Your task to perform on an android device: Clear the cart on costco.com. Search for "macbook" on costco.com, select the first entry, and add it to the cart. Image 0: 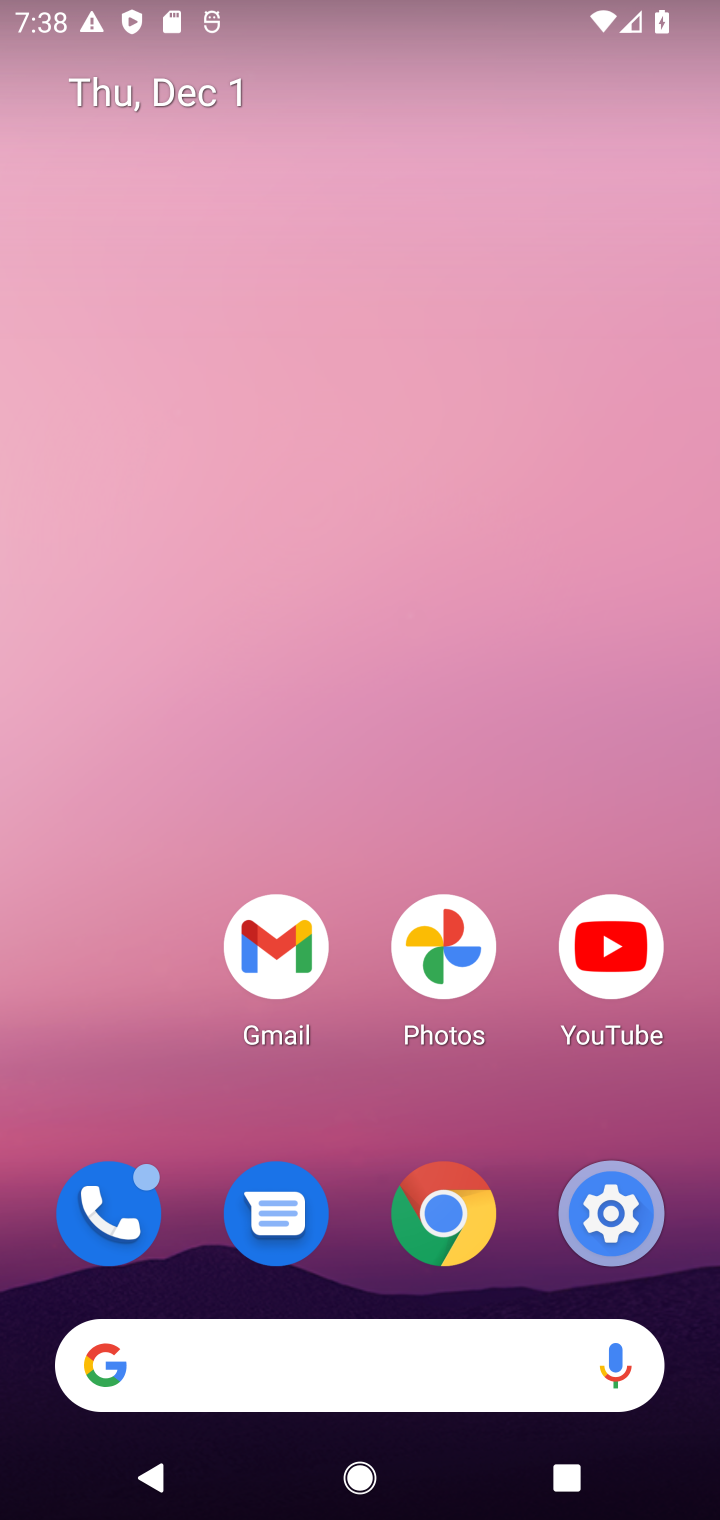
Step 0: click (431, 1208)
Your task to perform on an android device: Clear the cart on costco.com. Search for "macbook" on costco.com, select the first entry, and add it to the cart. Image 1: 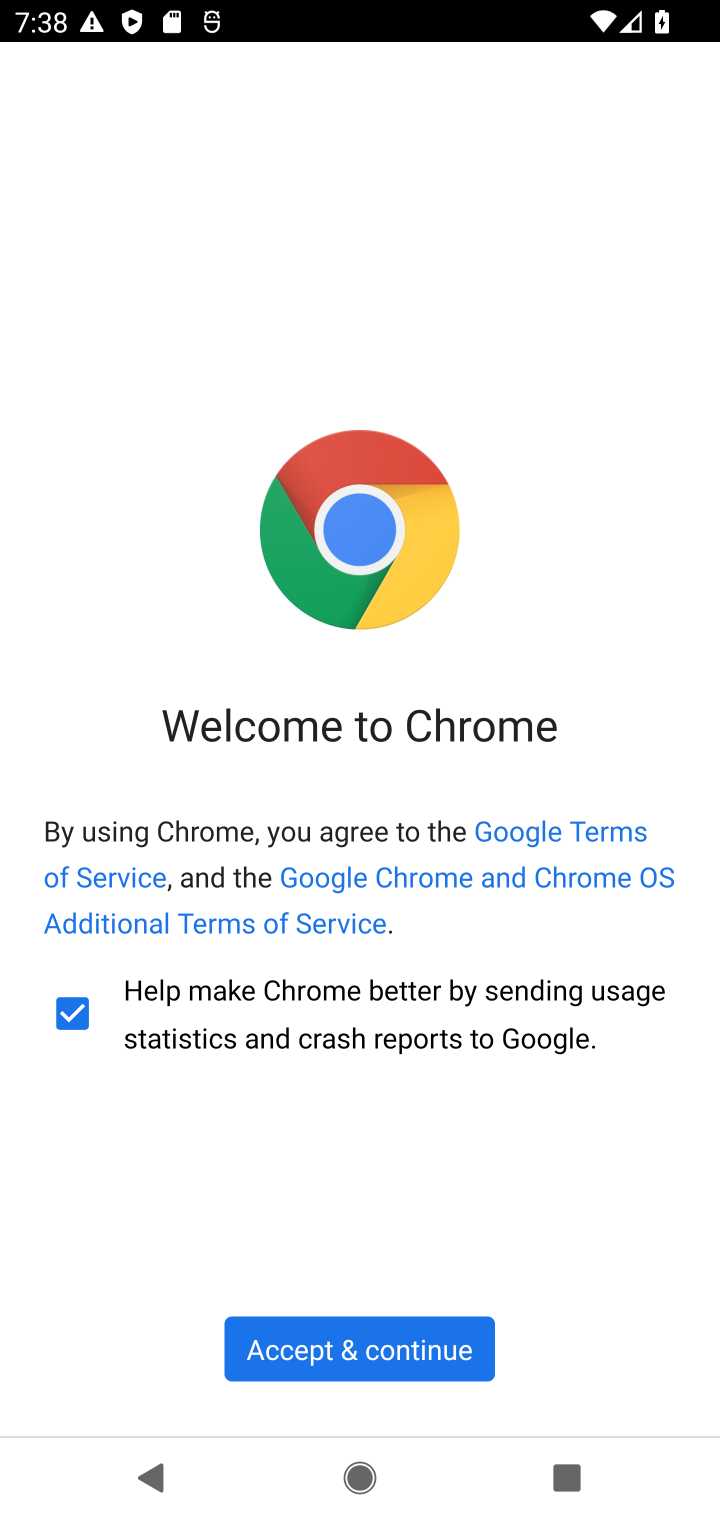
Step 1: click (330, 1350)
Your task to perform on an android device: Clear the cart on costco.com. Search for "macbook" on costco.com, select the first entry, and add it to the cart. Image 2: 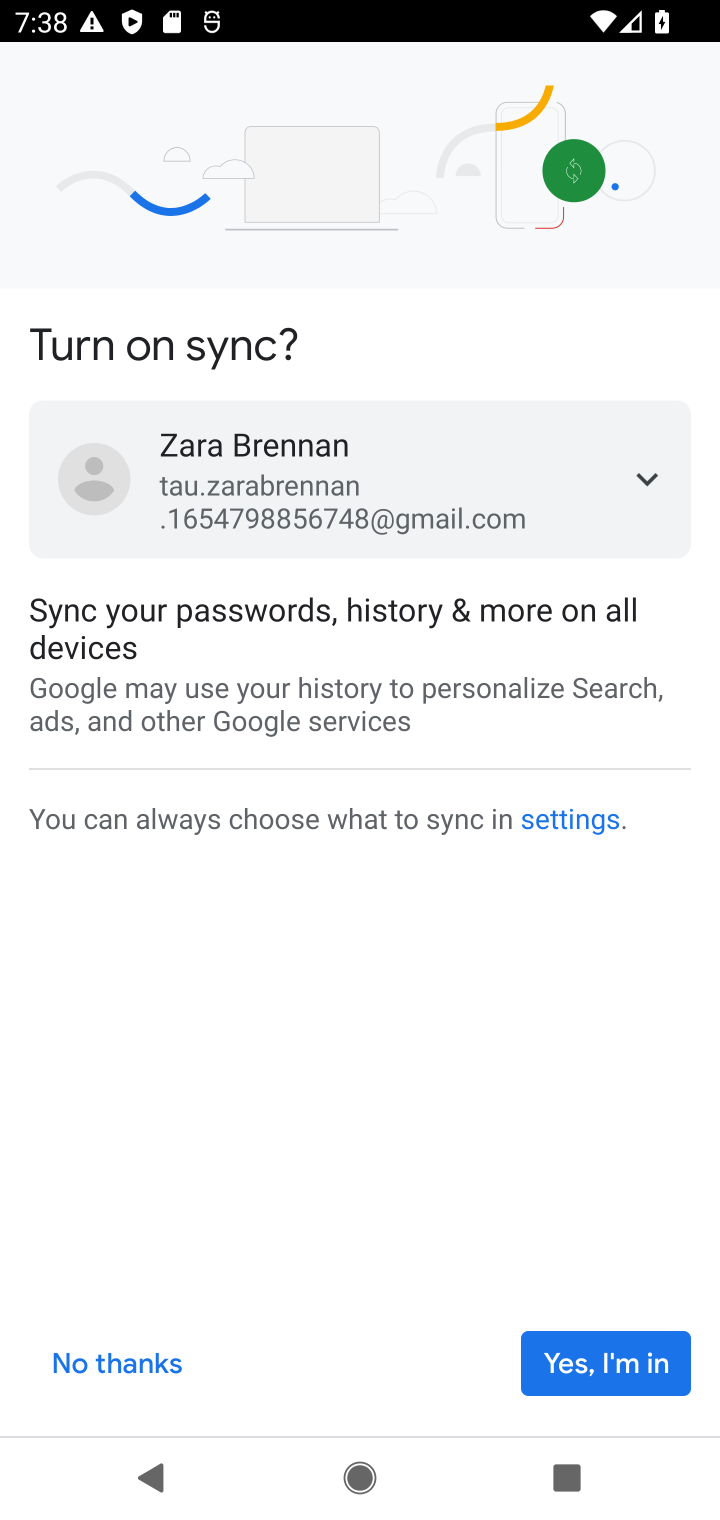
Step 2: click (595, 1371)
Your task to perform on an android device: Clear the cart on costco.com. Search for "macbook" on costco.com, select the first entry, and add it to the cart. Image 3: 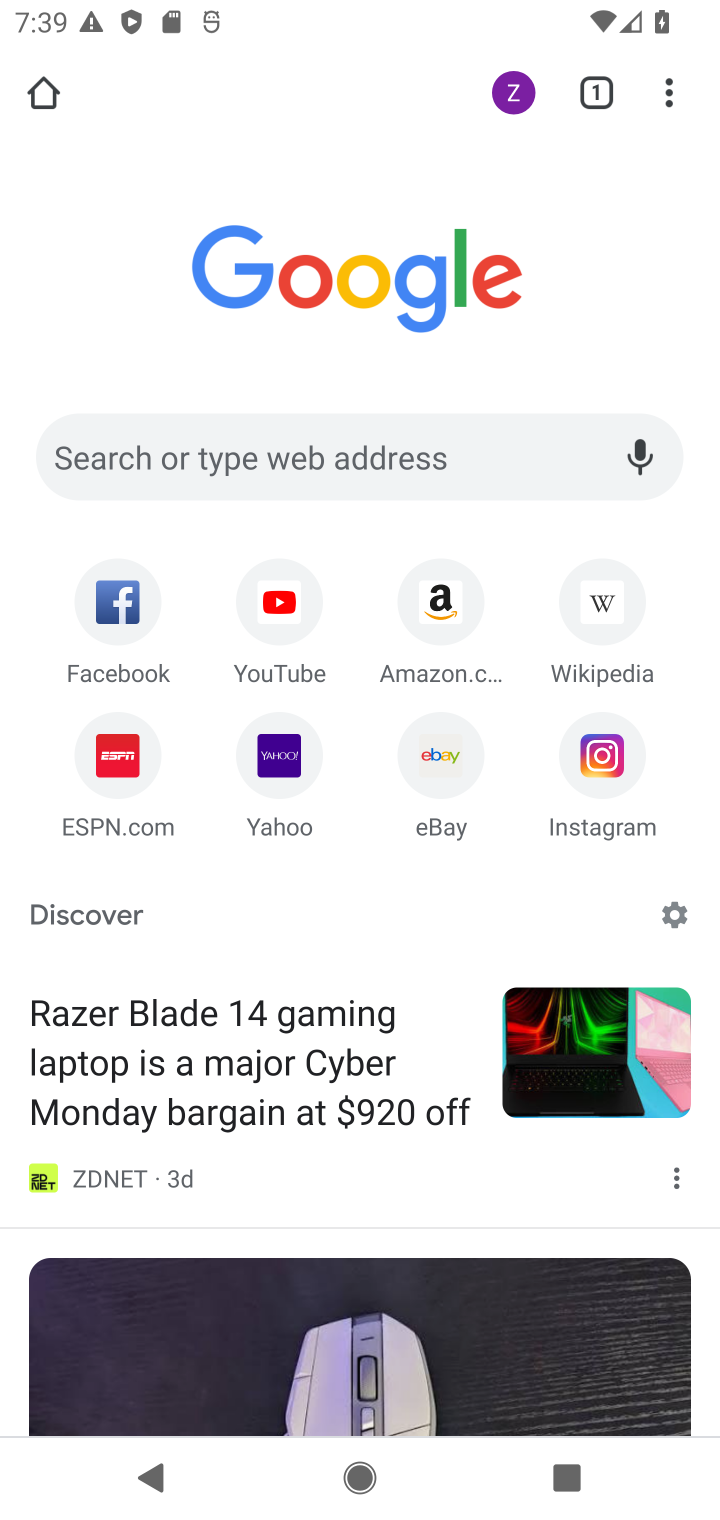
Step 3: click (270, 455)
Your task to perform on an android device: Clear the cart on costco.com. Search for "macbook" on costco.com, select the first entry, and add it to the cart. Image 4: 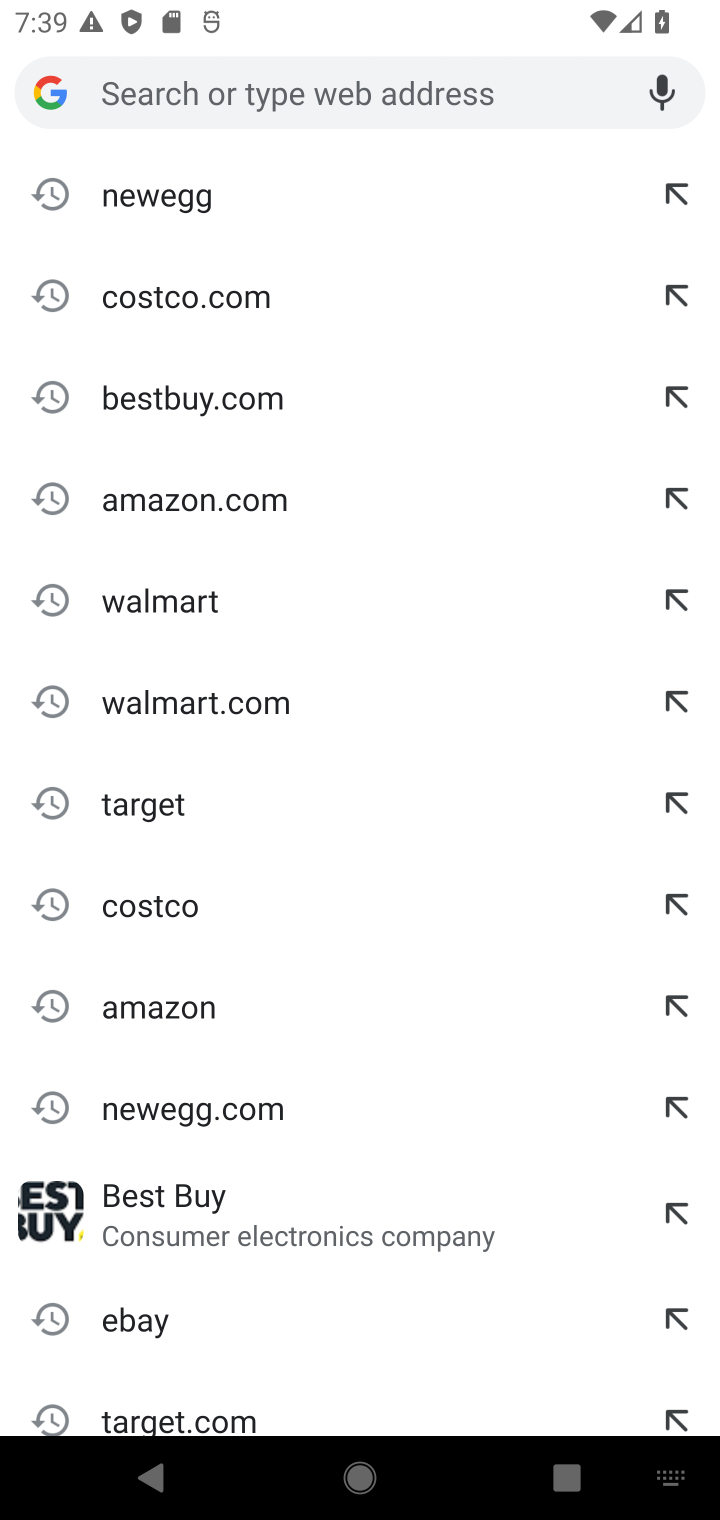
Step 4: click (253, 309)
Your task to perform on an android device: Clear the cart on costco.com. Search for "macbook" on costco.com, select the first entry, and add it to the cart. Image 5: 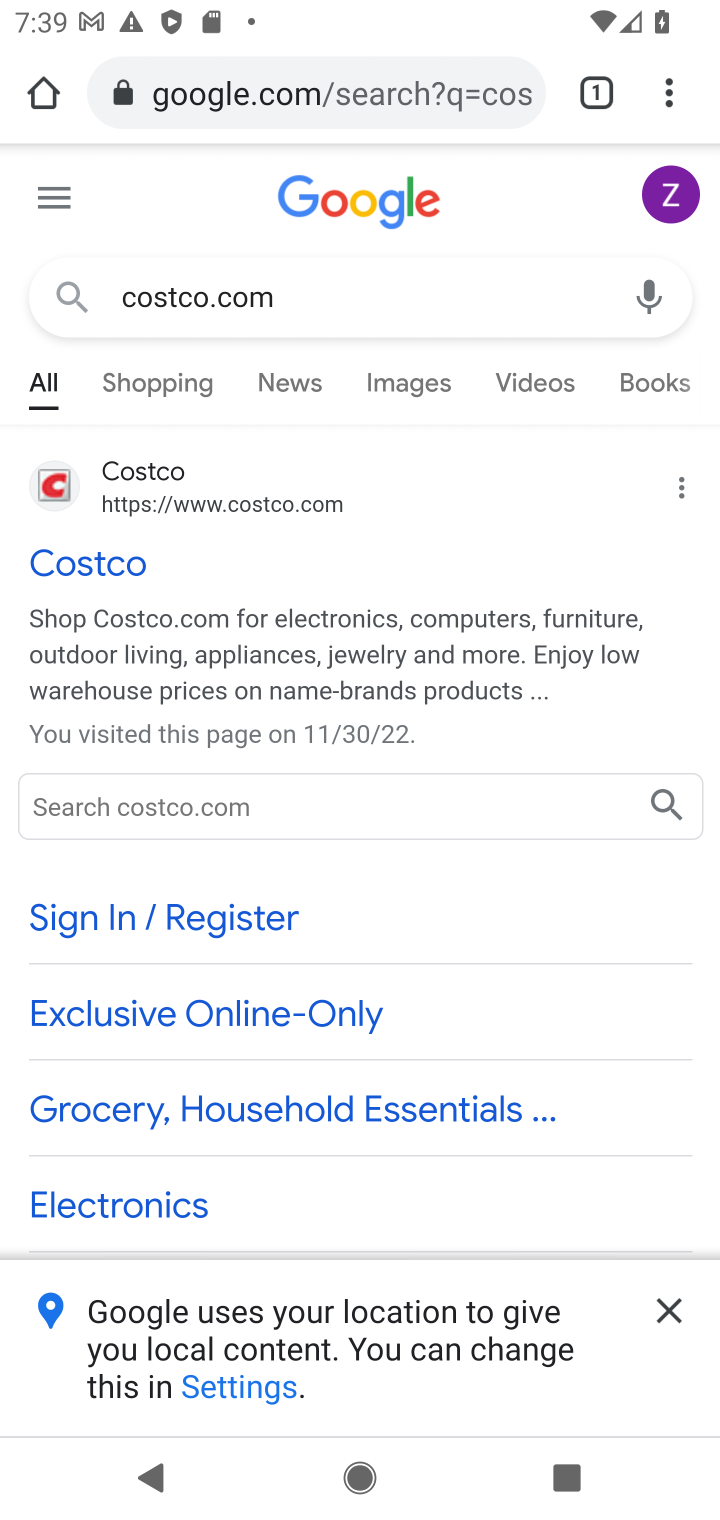
Step 5: click (665, 1314)
Your task to perform on an android device: Clear the cart on costco.com. Search for "macbook" on costco.com, select the first entry, and add it to the cart. Image 6: 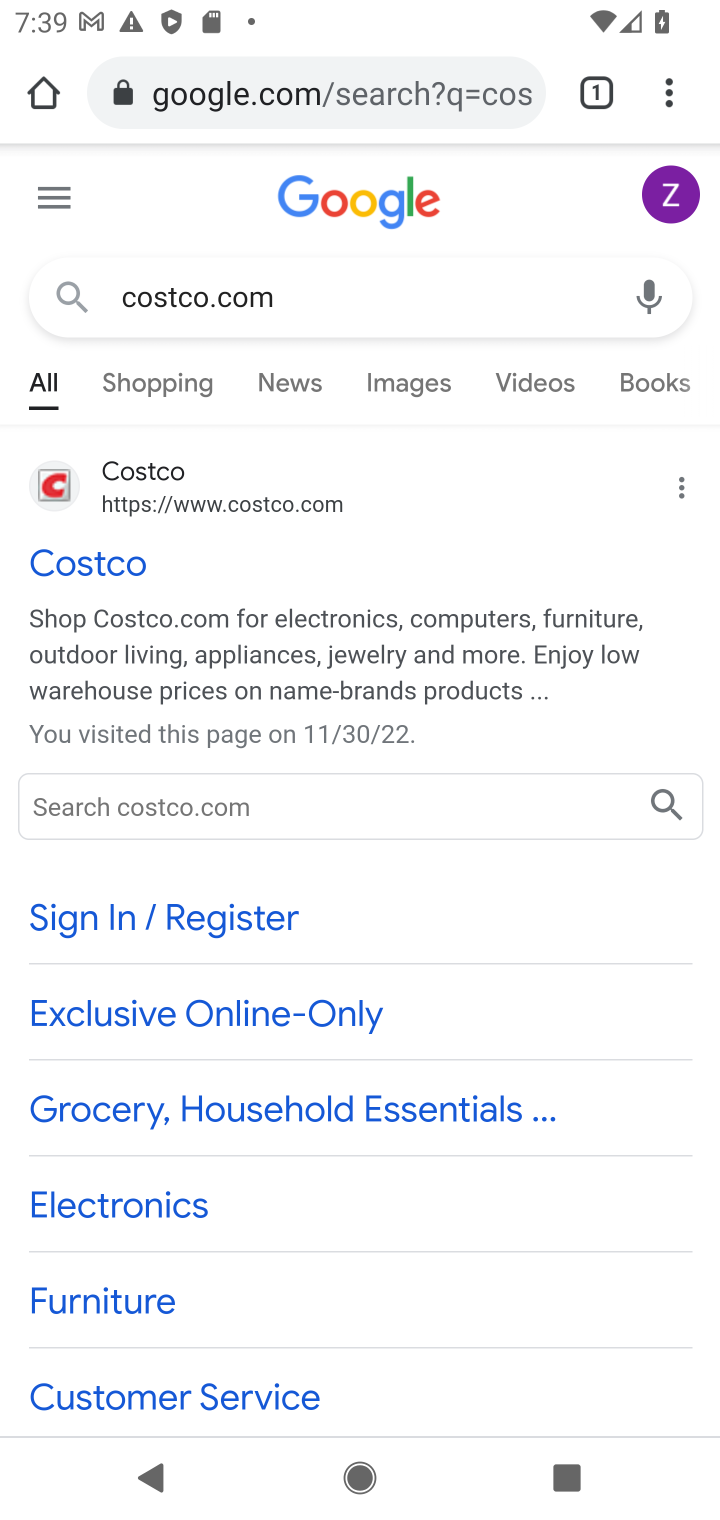
Step 6: click (104, 559)
Your task to perform on an android device: Clear the cart on costco.com. Search for "macbook" on costco.com, select the first entry, and add it to the cart. Image 7: 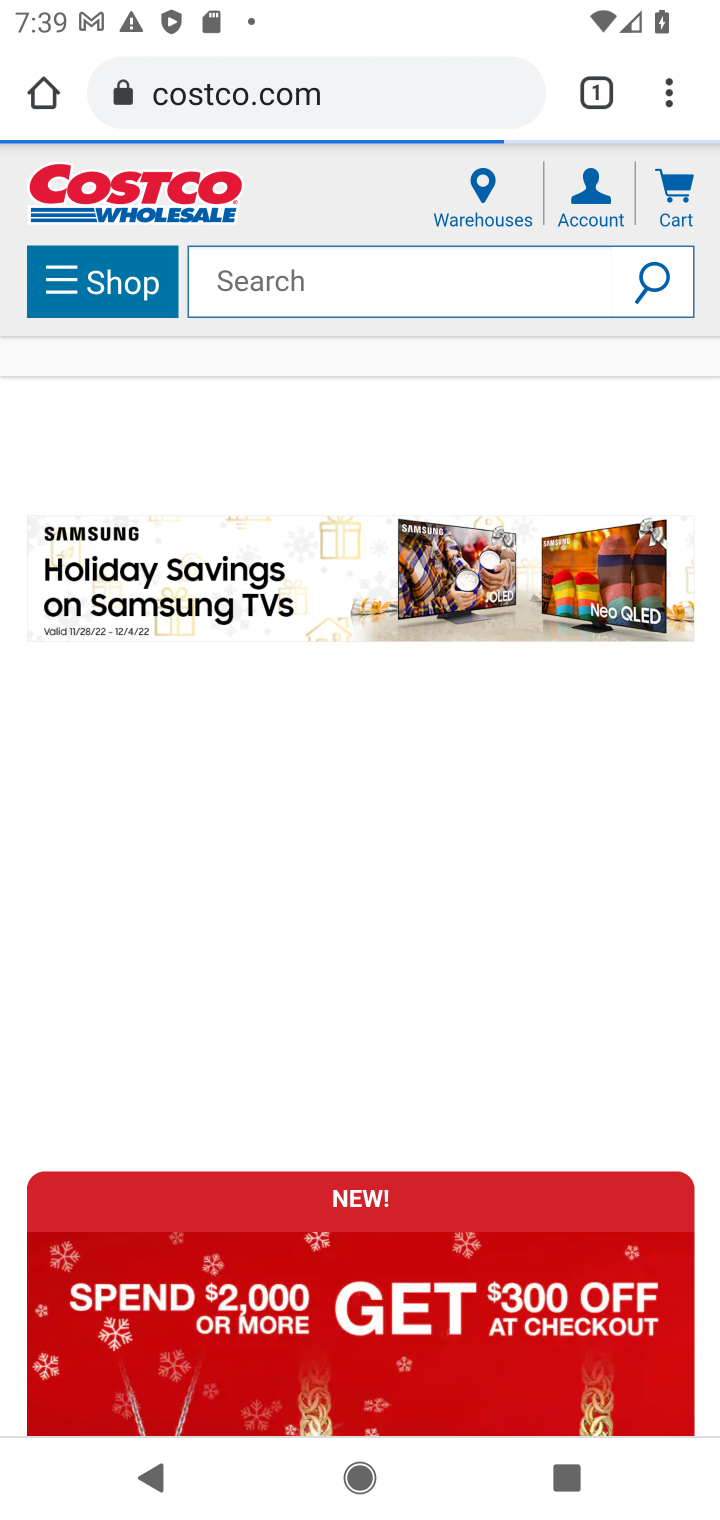
Step 7: click (672, 190)
Your task to perform on an android device: Clear the cart on costco.com. Search for "macbook" on costco.com, select the first entry, and add it to the cart. Image 8: 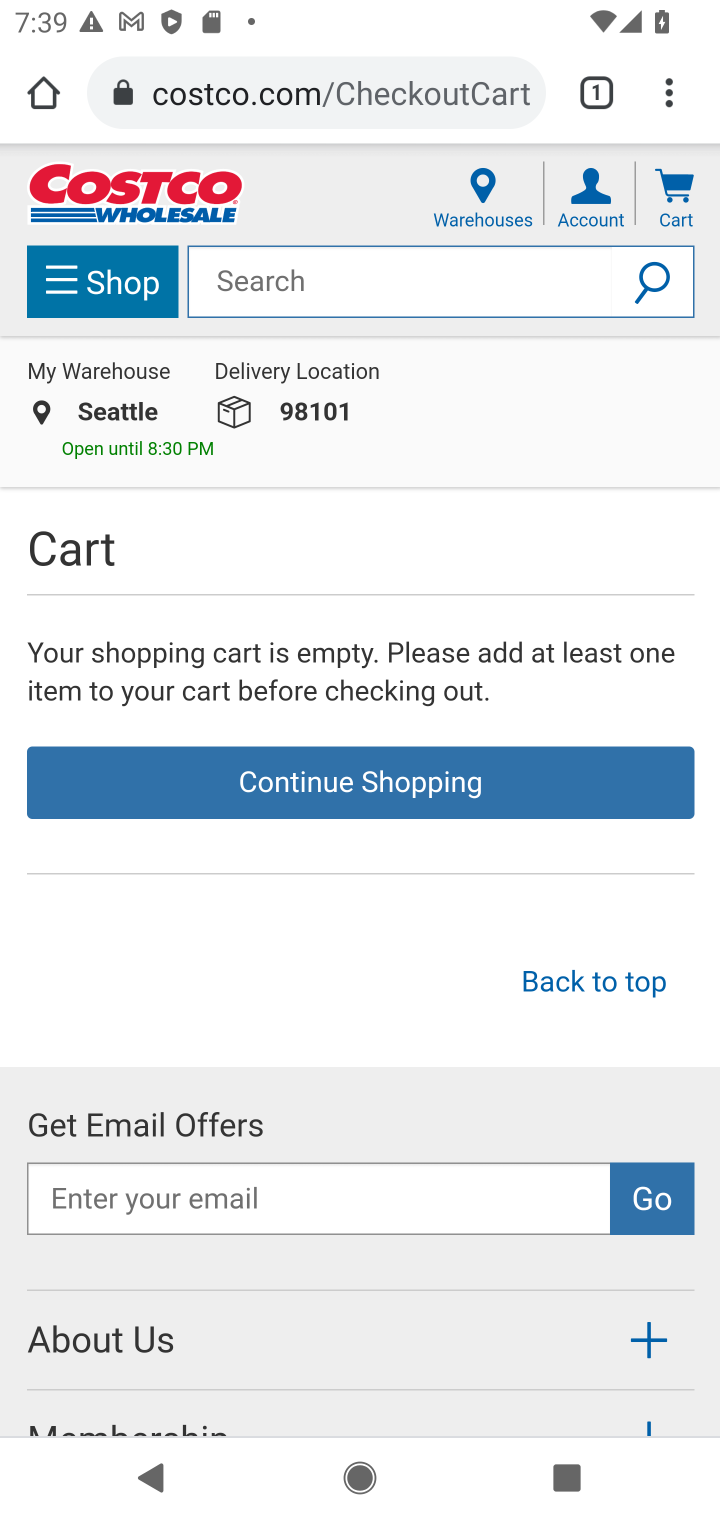
Step 8: click (264, 265)
Your task to perform on an android device: Clear the cart on costco.com. Search for "macbook" on costco.com, select the first entry, and add it to the cart. Image 9: 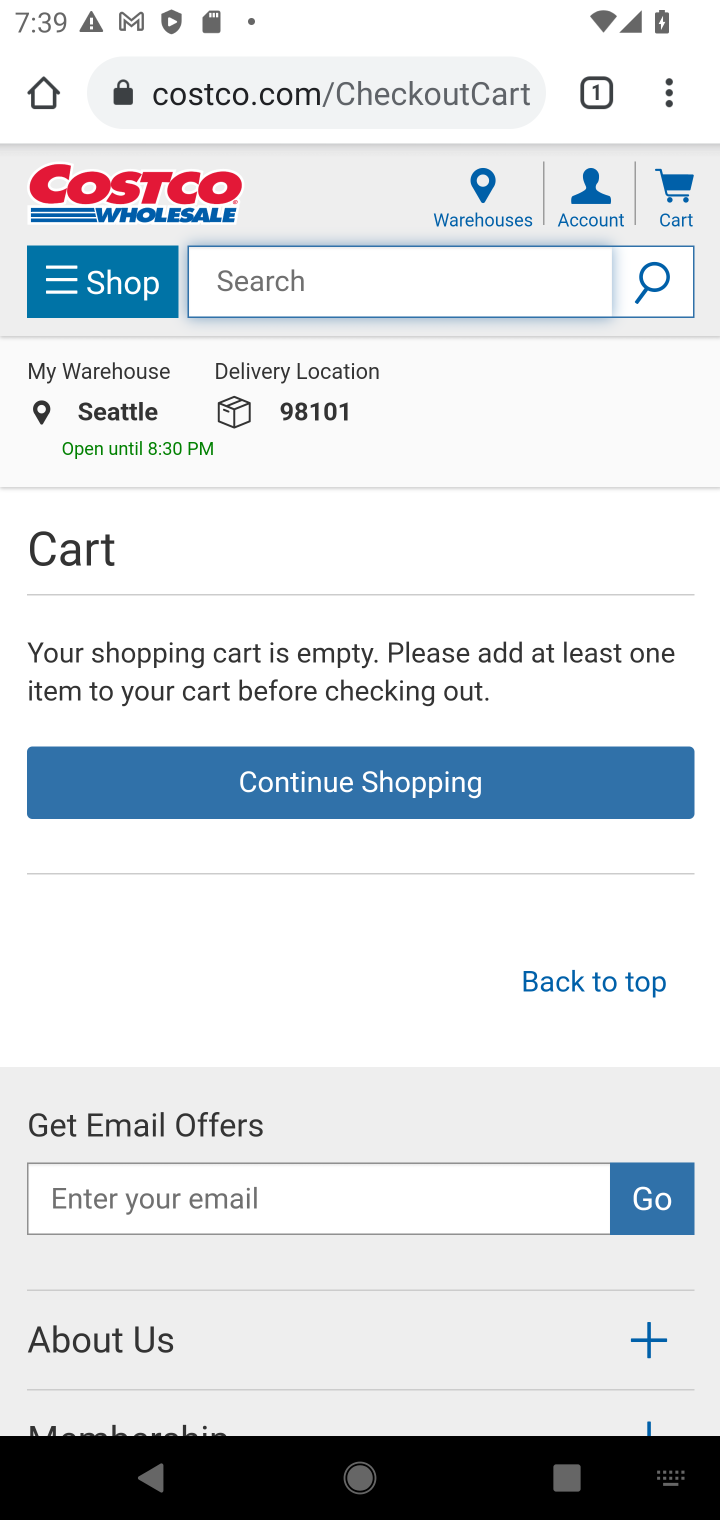
Step 9: type "macbook"
Your task to perform on an android device: Clear the cart on costco.com. Search for "macbook" on costco.com, select the first entry, and add it to the cart. Image 10: 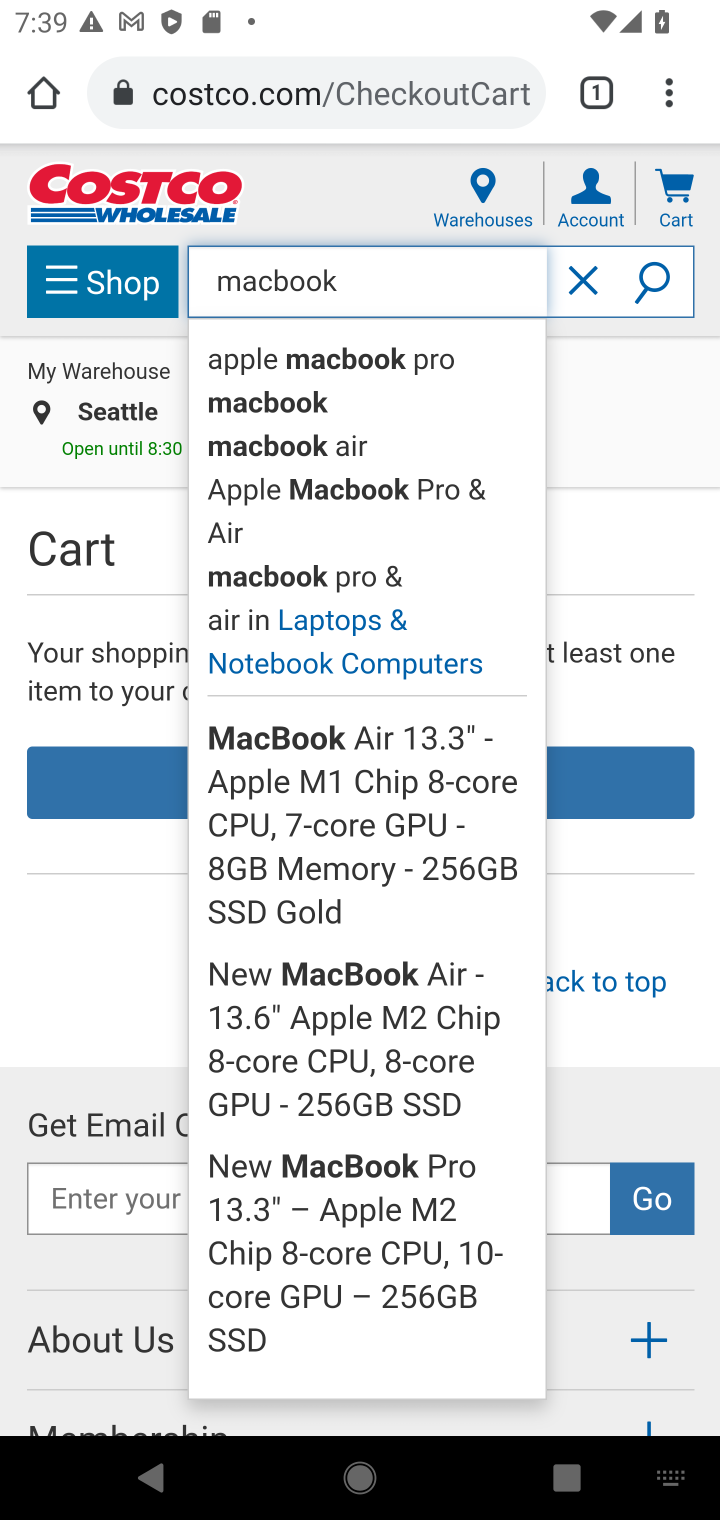
Step 10: click (296, 355)
Your task to perform on an android device: Clear the cart on costco.com. Search for "macbook" on costco.com, select the first entry, and add it to the cart. Image 11: 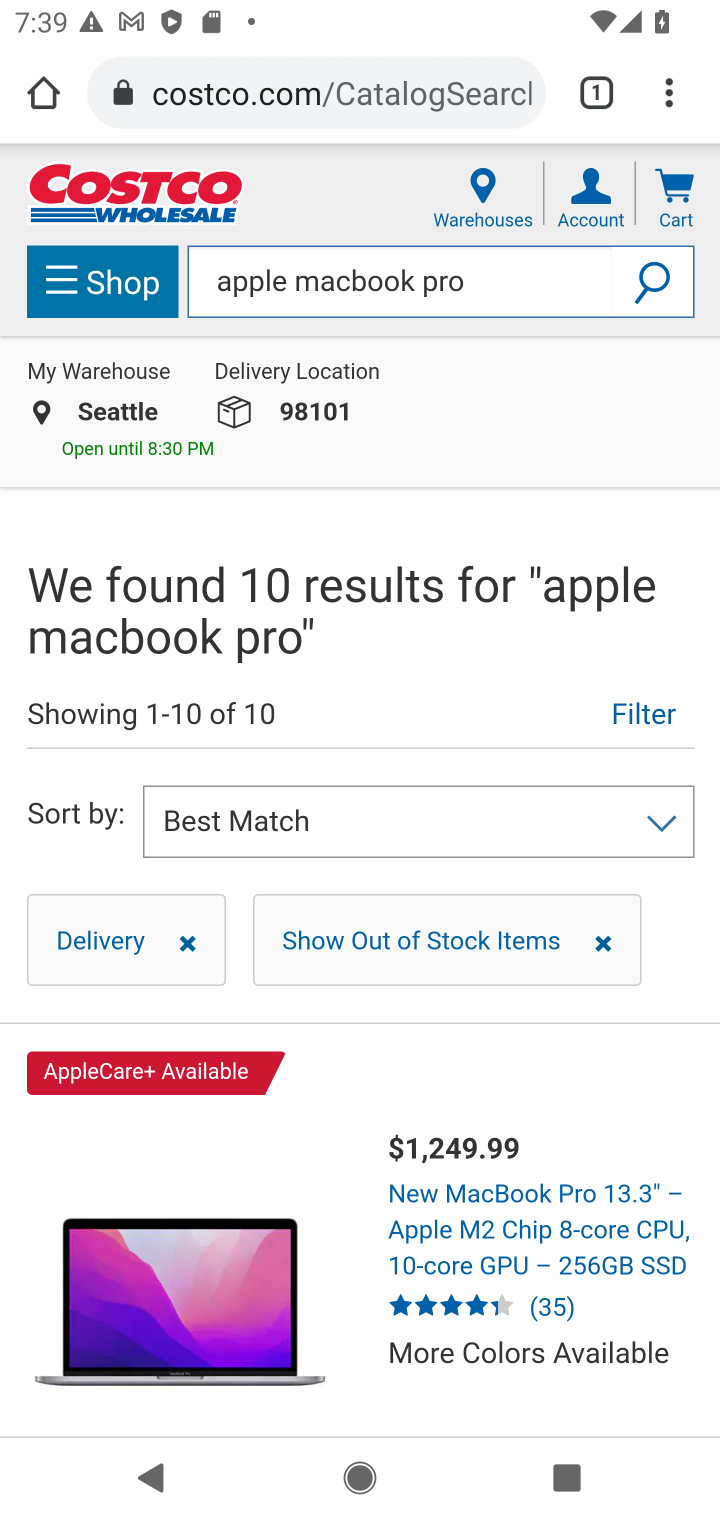
Step 11: click (273, 1262)
Your task to perform on an android device: Clear the cart on costco.com. Search for "macbook" on costco.com, select the first entry, and add it to the cart. Image 12: 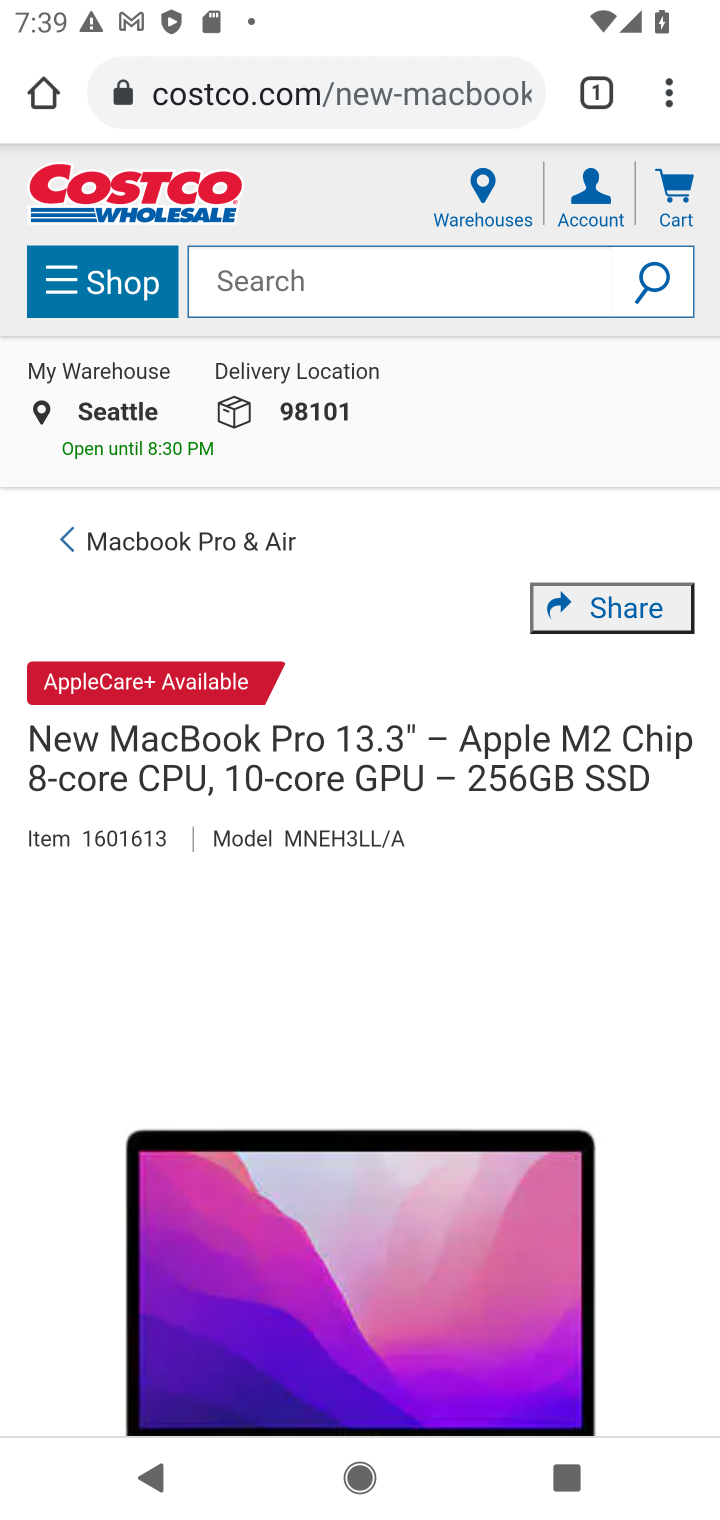
Step 12: drag from (276, 1217) to (338, 658)
Your task to perform on an android device: Clear the cart on costco.com. Search for "macbook" on costco.com, select the first entry, and add it to the cart. Image 13: 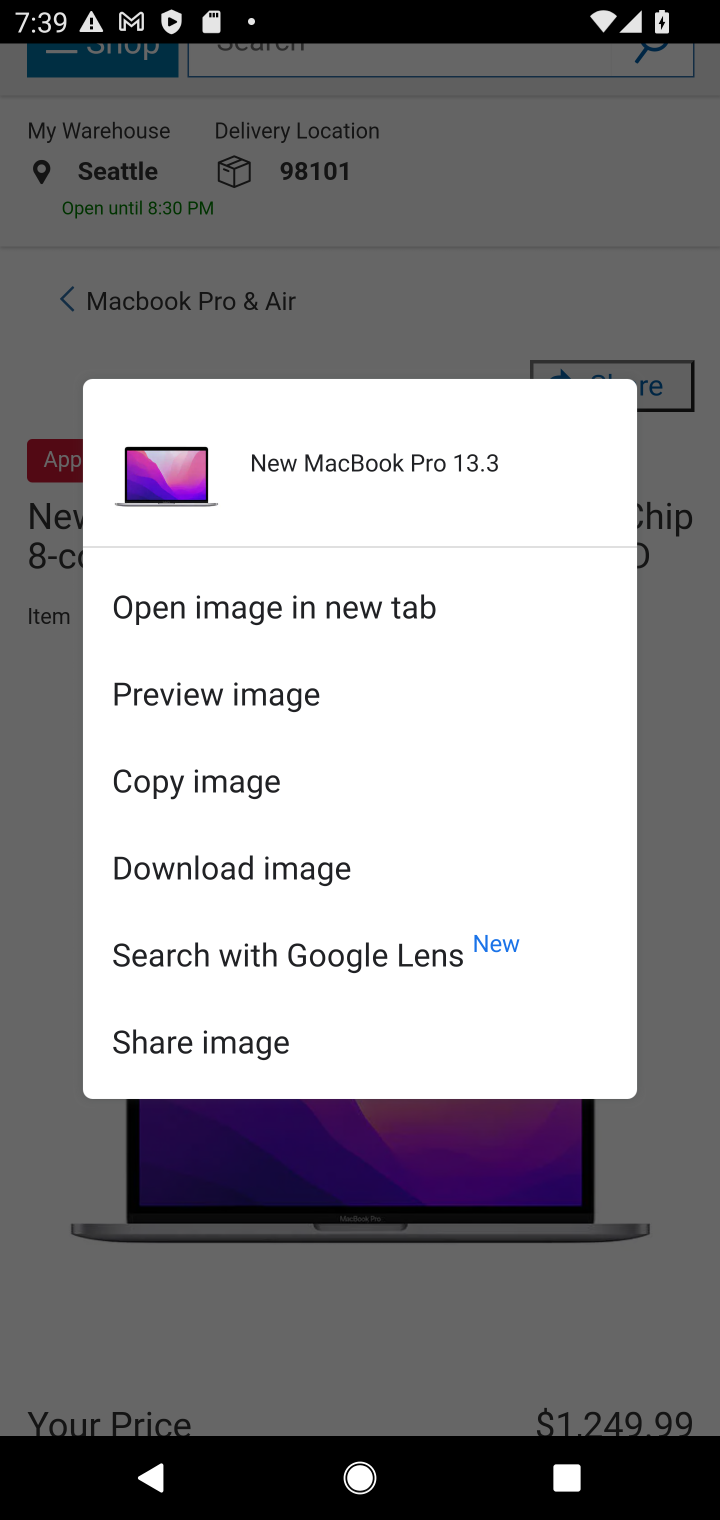
Step 13: click (560, 1166)
Your task to perform on an android device: Clear the cart on costco.com. Search for "macbook" on costco.com, select the first entry, and add it to the cart. Image 14: 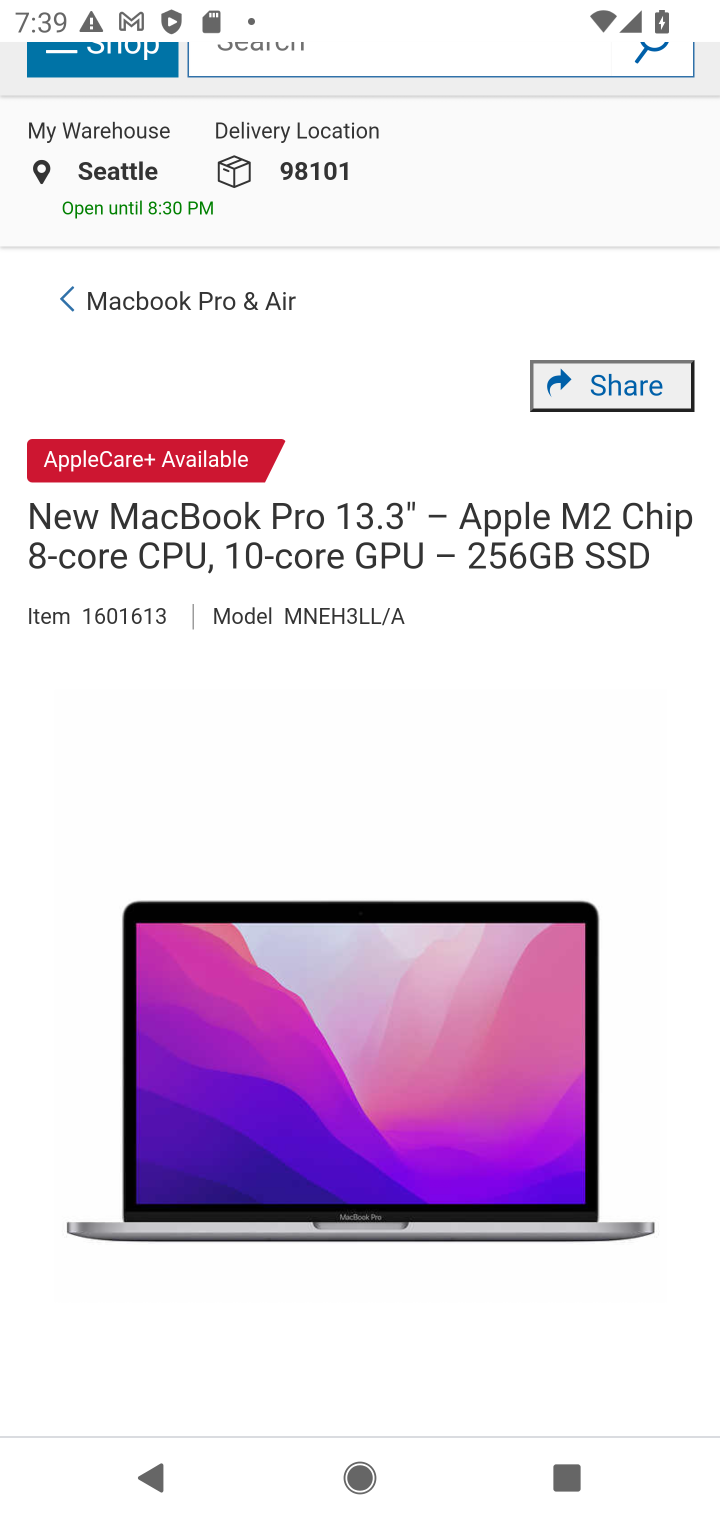
Step 14: drag from (560, 1166) to (537, 641)
Your task to perform on an android device: Clear the cart on costco.com. Search for "macbook" on costco.com, select the first entry, and add it to the cart. Image 15: 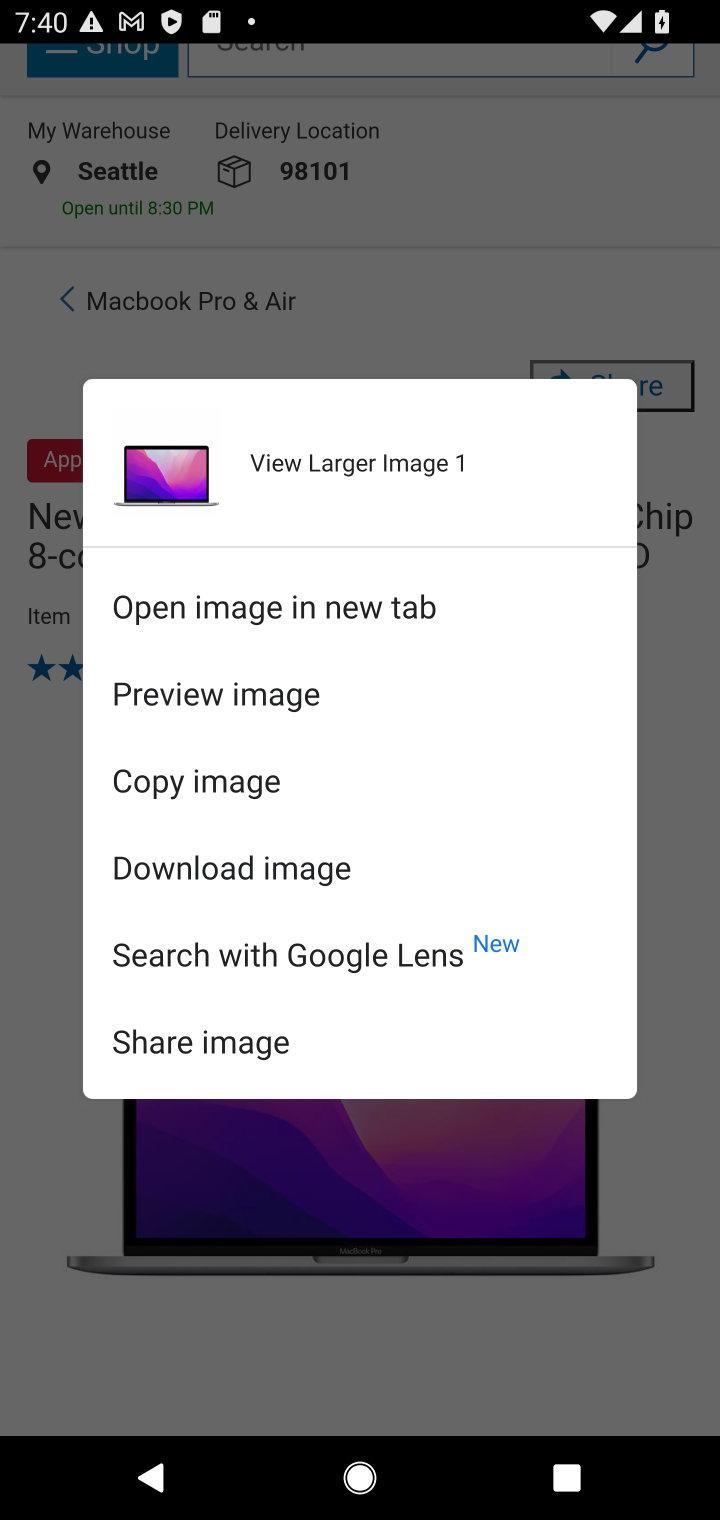
Step 15: click (365, 1296)
Your task to perform on an android device: Clear the cart on costco.com. Search for "macbook" on costco.com, select the first entry, and add it to the cart. Image 16: 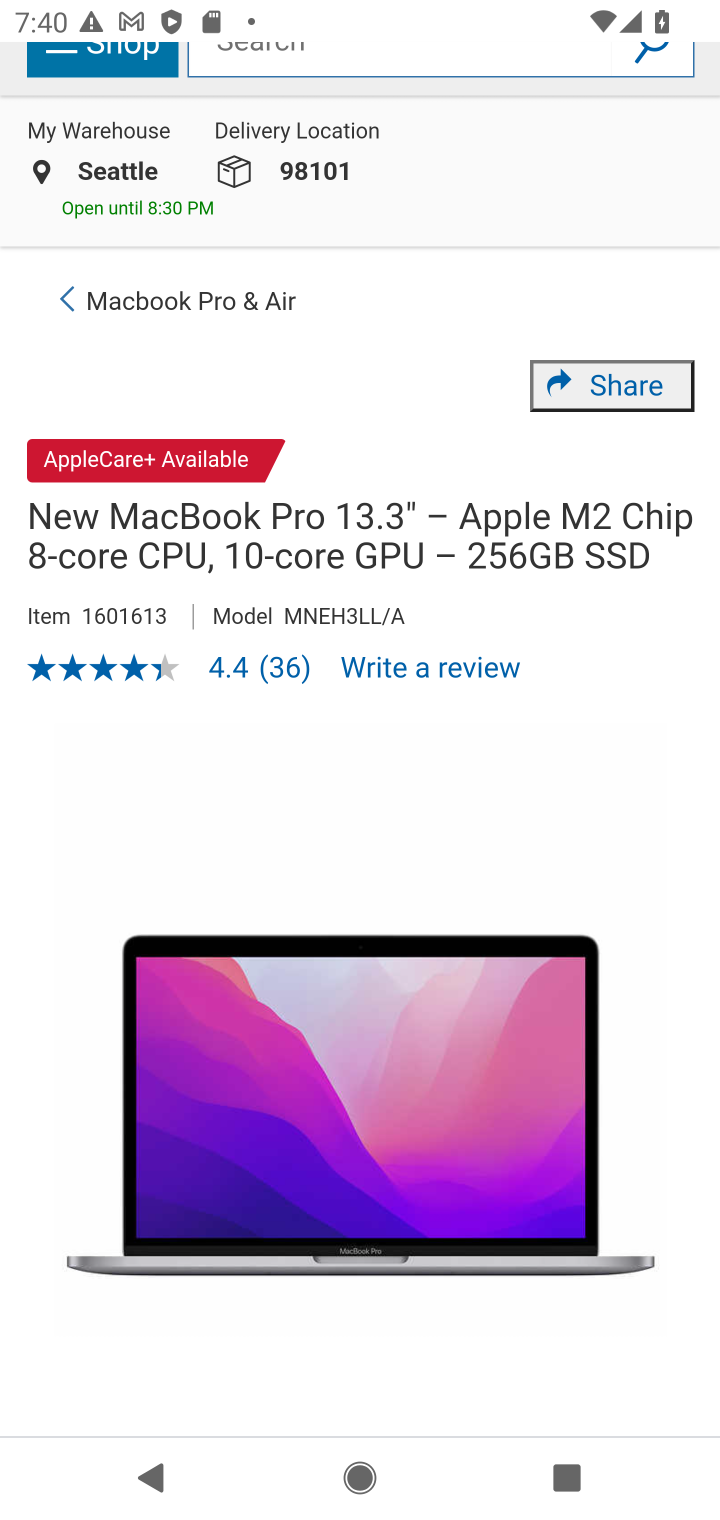
Step 16: drag from (365, 1296) to (383, 508)
Your task to perform on an android device: Clear the cart on costco.com. Search for "macbook" on costco.com, select the first entry, and add it to the cart. Image 17: 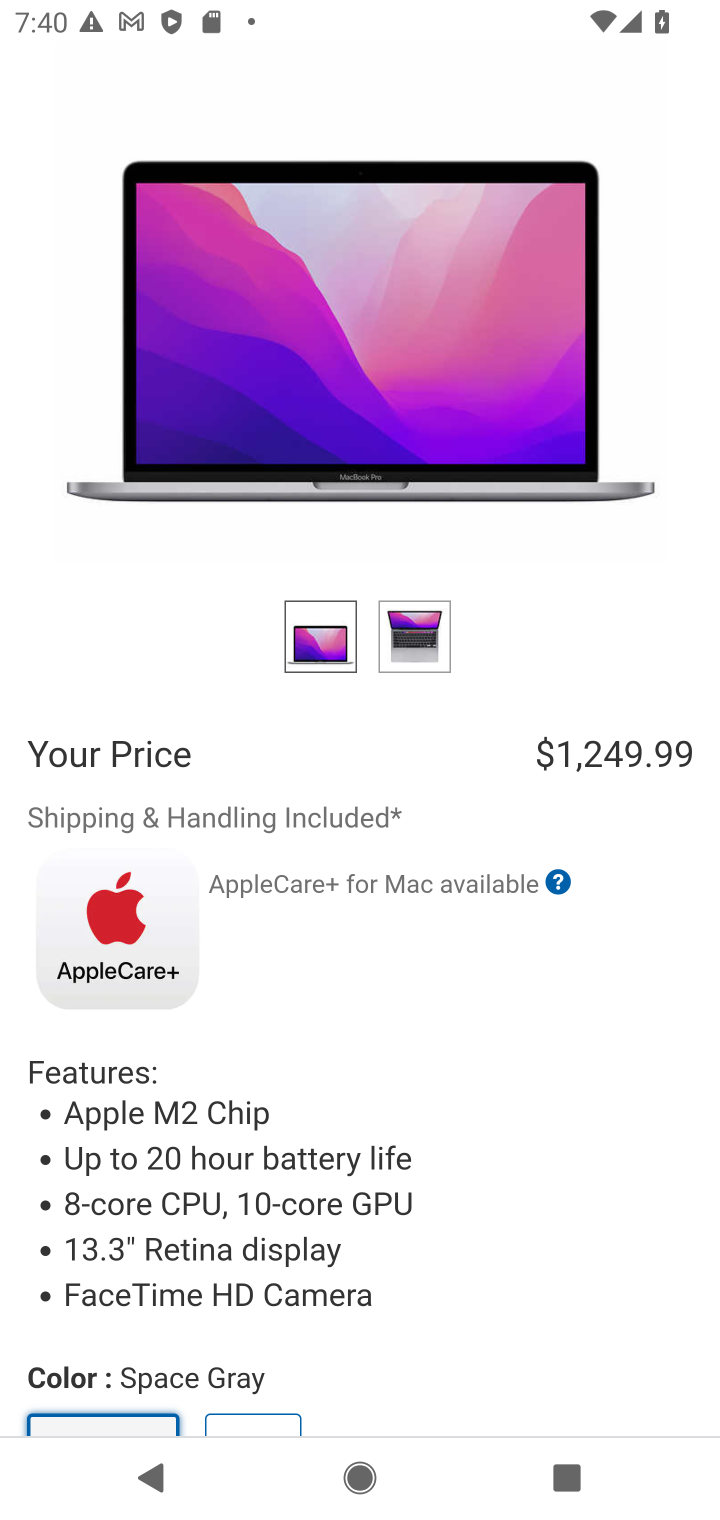
Step 17: drag from (463, 1197) to (480, 562)
Your task to perform on an android device: Clear the cart on costco.com. Search for "macbook" on costco.com, select the first entry, and add it to the cart. Image 18: 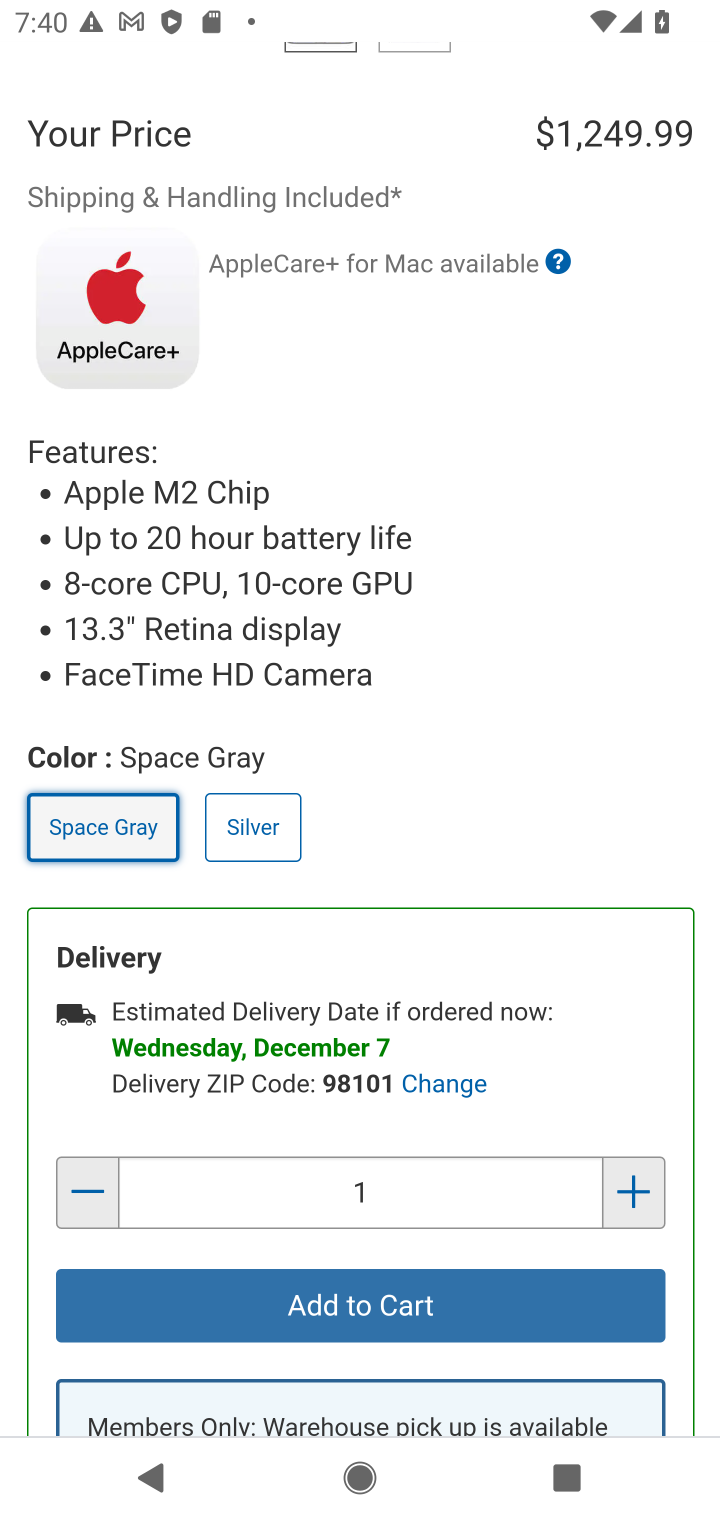
Step 18: click (365, 1304)
Your task to perform on an android device: Clear the cart on costco.com. Search for "macbook" on costco.com, select the first entry, and add it to the cart. Image 19: 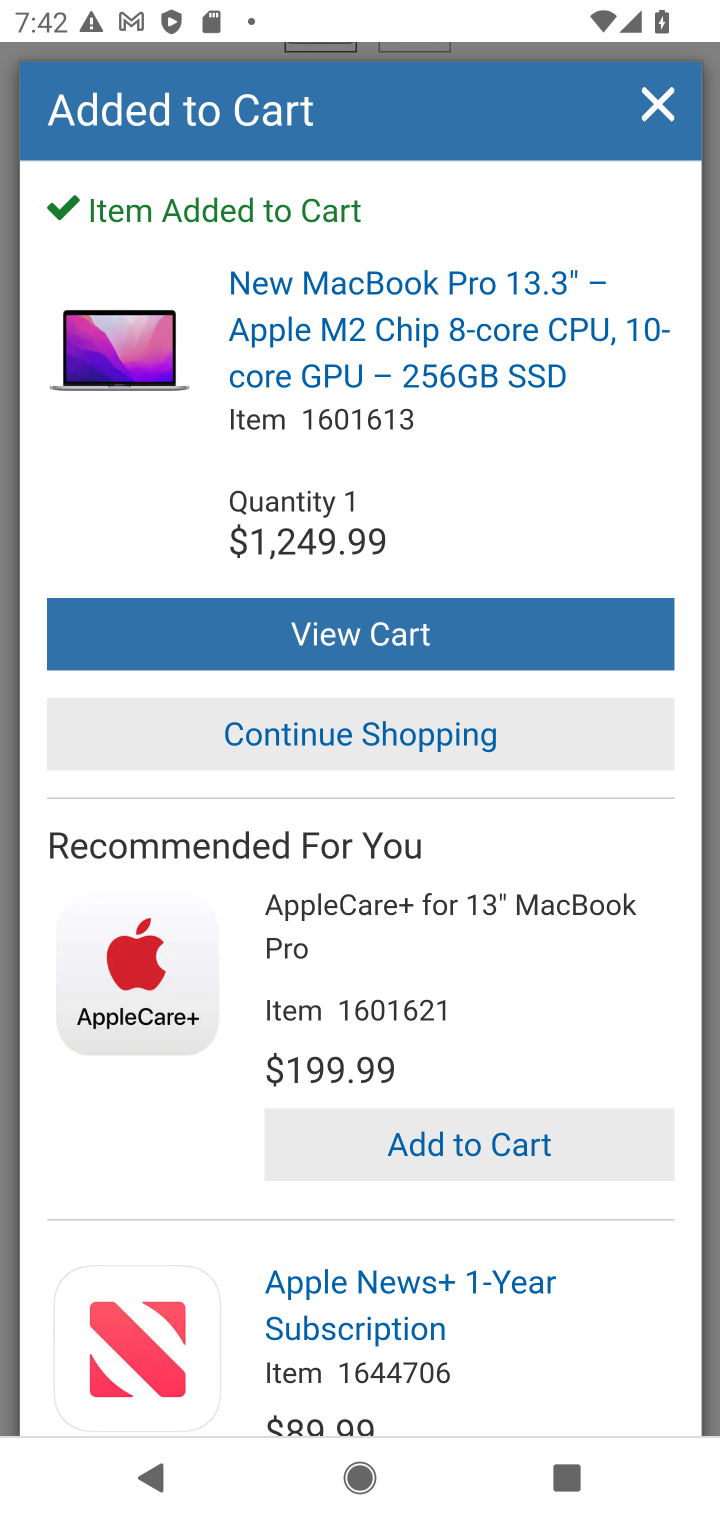
Step 19: task complete